Your task to perform on an android device: toggle show notifications on the lock screen Image 0: 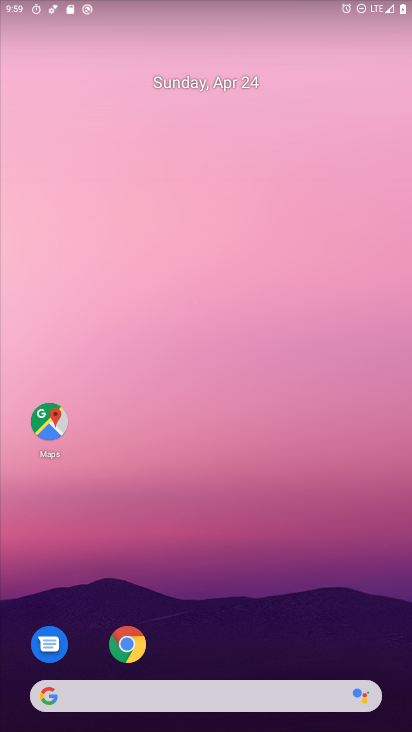
Step 0: drag from (212, 670) to (211, 0)
Your task to perform on an android device: toggle show notifications on the lock screen Image 1: 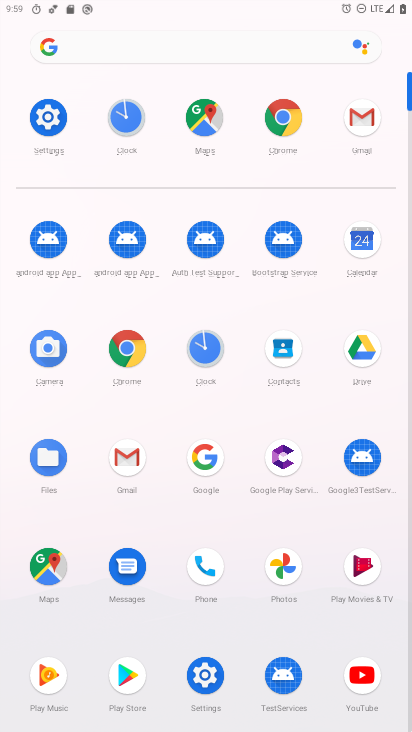
Step 1: click (53, 124)
Your task to perform on an android device: toggle show notifications on the lock screen Image 2: 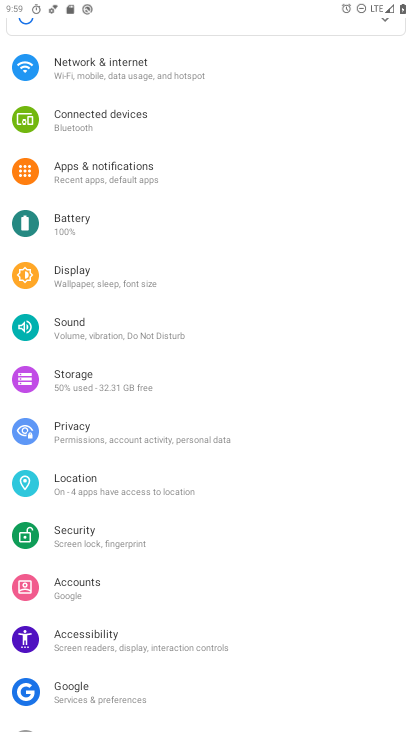
Step 2: click (118, 163)
Your task to perform on an android device: toggle show notifications on the lock screen Image 3: 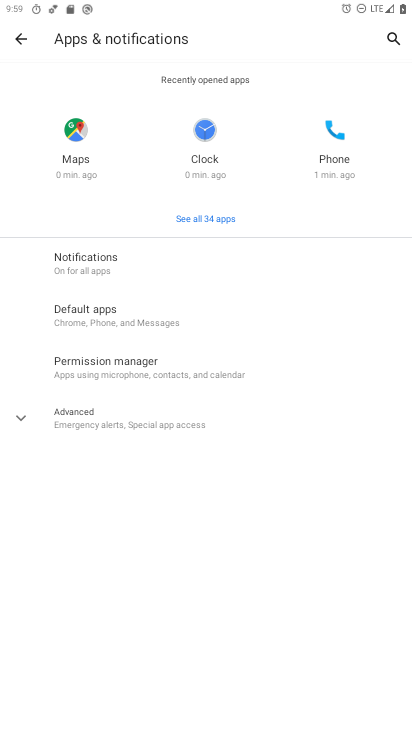
Step 3: click (144, 234)
Your task to perform on an android device: toggle show notifications on the lock screen Image 4: 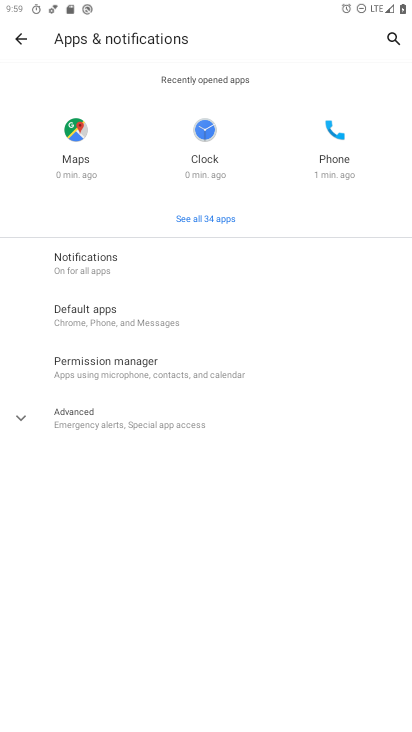
Step 4: click (96, 274)
Your task to perform on an android device: toggle show notifications on the lock screen Image 5: 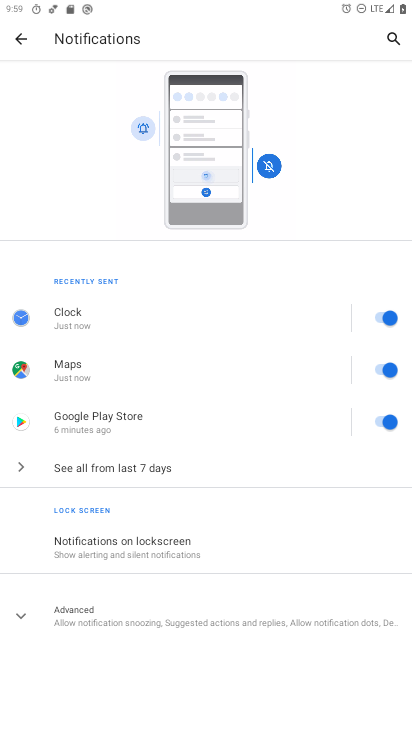
Step 5: click (161, 529)
Your task to perform on an android device: toggle show notifications on the lock screen Image 6: 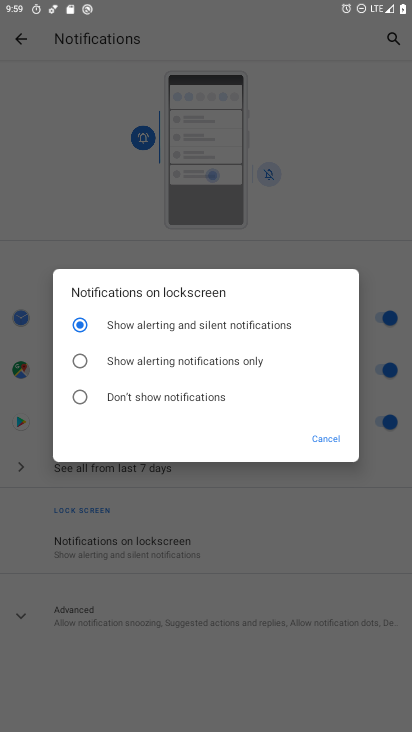
Step 6: click (183, 405)
Your task to perform on an android device: toggle show notifications on the lock screen Image 7: 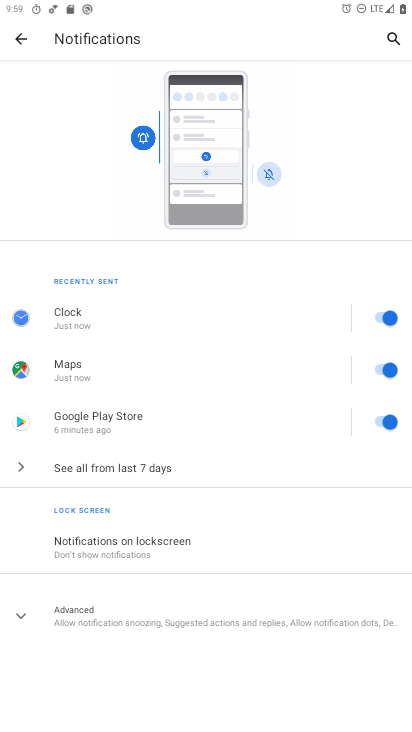
Step 7: task complete